Your task to perform on an android device: Go to wifi settings Image 0: 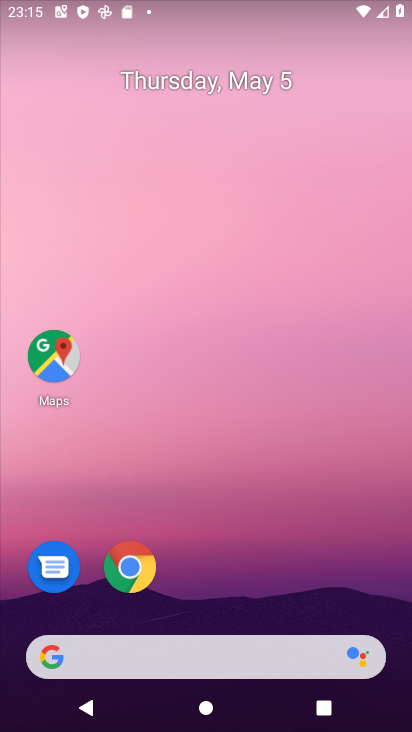
Step 0: drag from (207, 612) to (165, 195)
Your task to perform on an android device: Go to wifi settings Image 1: 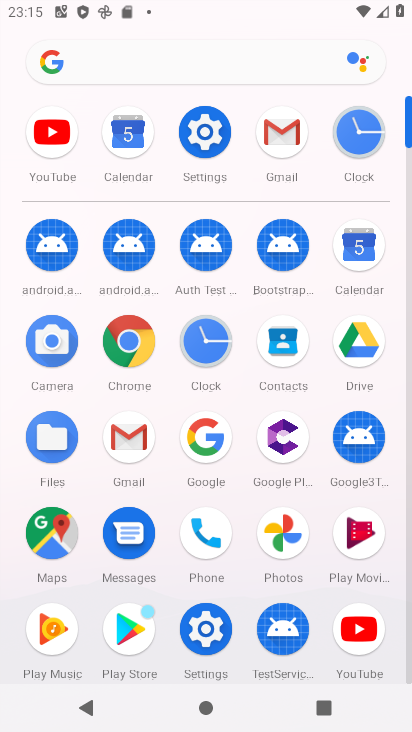
Step 1: click (206, 119)
Your task to perform on an android device: Go to wifi settings Image 2: 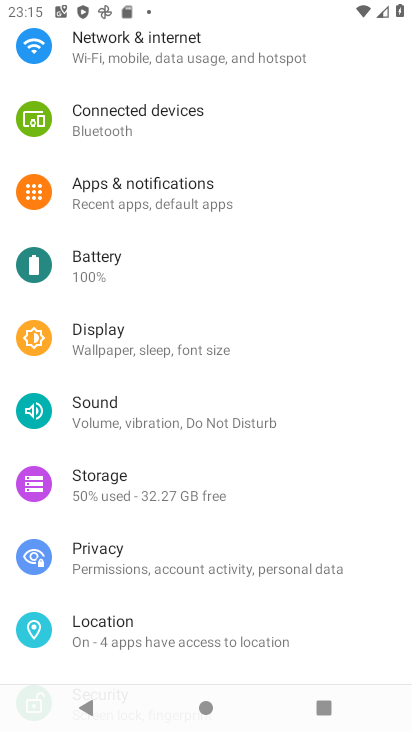
Step 2: click (159, 58)
Your task to perform on an android device: Go to wifi settings Image 3: 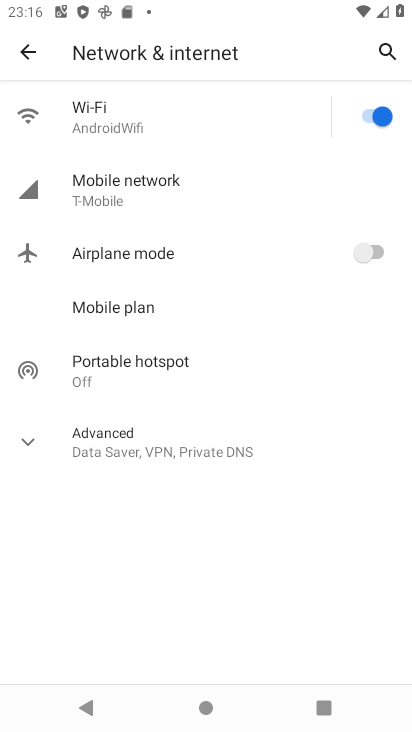
Step 3: task complete